Your task to perform on an android device: toggle pop-ups in chrome Image 0: 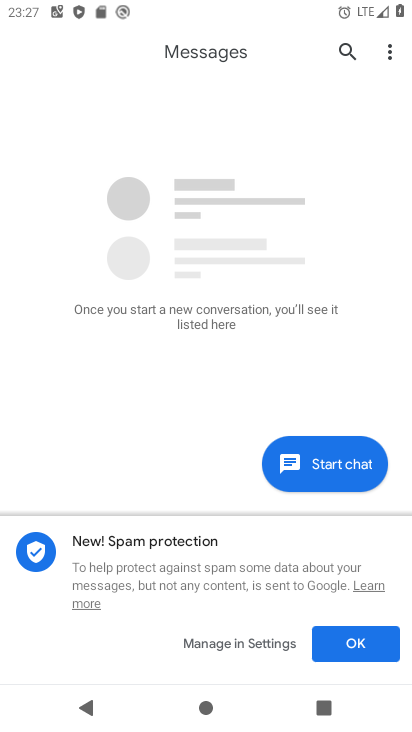
Step 0: press back button
Your task to perform on an android device: toggle pop-ups in chrome Image 1: 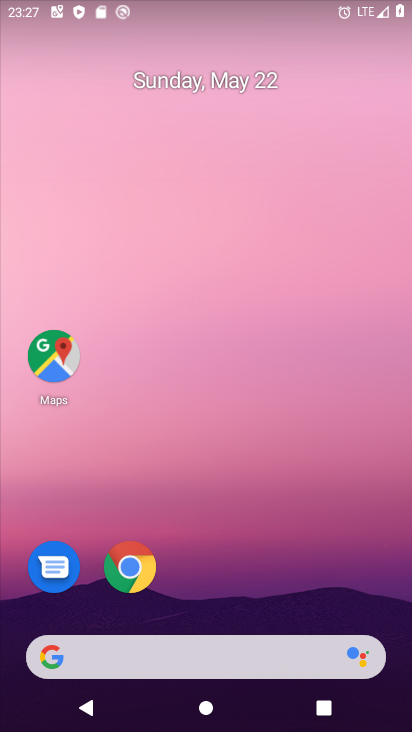
Step 1: drag from (205, 88) to (198, 37)
Your task to perform on an android device: toggle pop-ups in chrome Image 2: 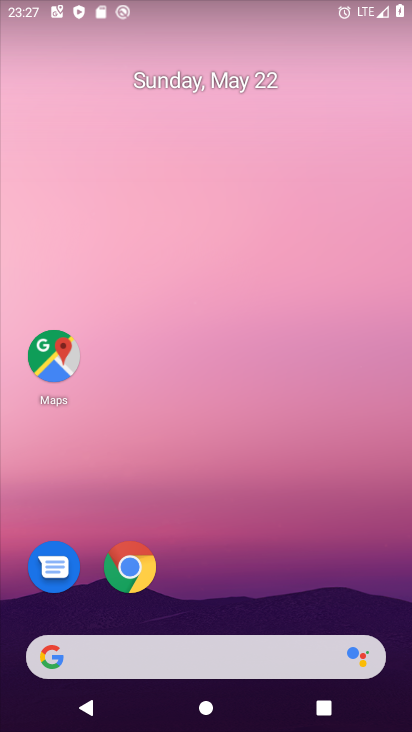
Step 2: drag from (200, 529) to (249, 49)
Your task to perform on an android device: toggle pop-ups in chrome Image 3: 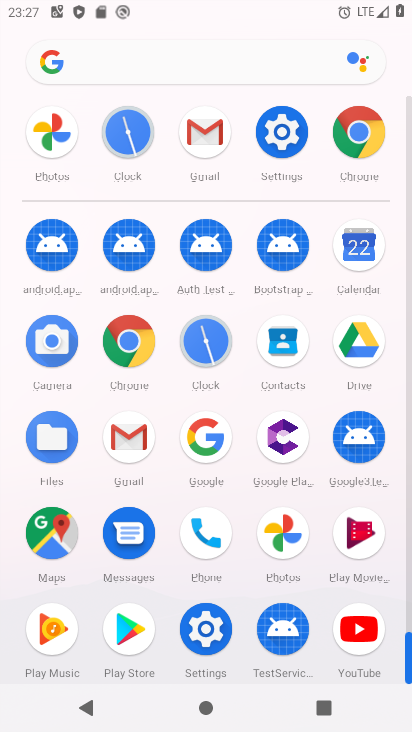
Step 3: drag from (3, 306) to (3, 228)
Your task to perform on an android device: toggle pop-ups in chrome Image 4: 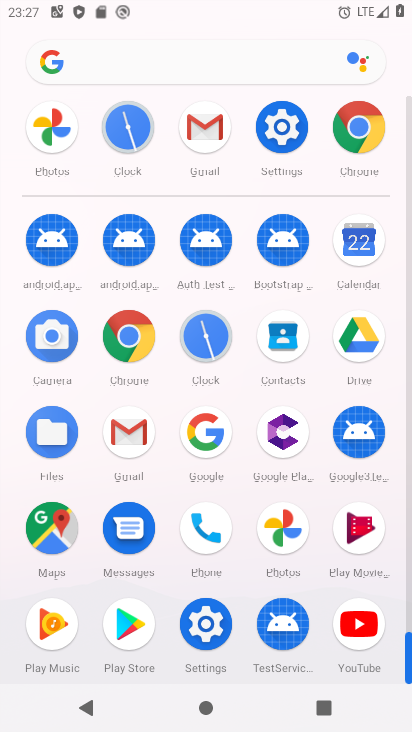
Step 4: drag from (7, 499) to (7, 239)
Your task to perform on an android device: toggle pop-ups in chrome Image 5: 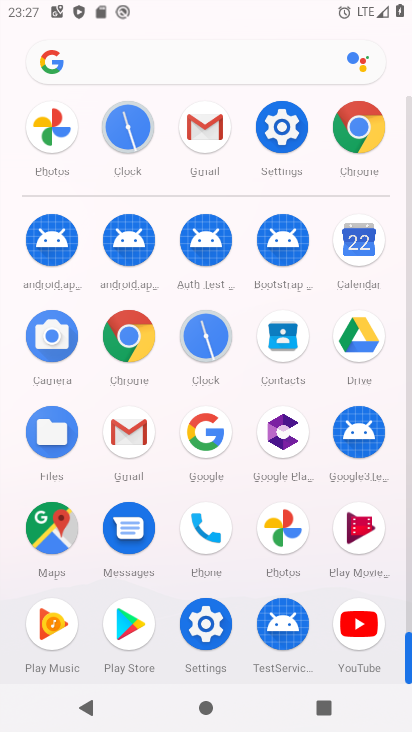
Step 5: click (127, 337)
Your task to perform on an android device: toggle pop-ups in chrome Image 6: 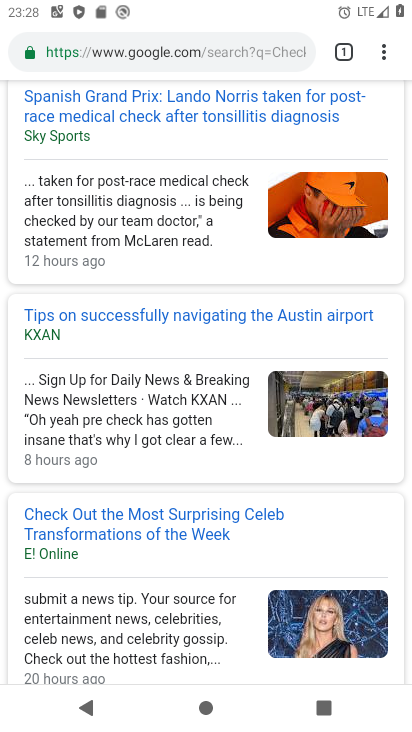
Step 6: drag from (384, 52) to (191, 585)
Your task to perform on an android device: toggle pop-ups in chrome Image 7: 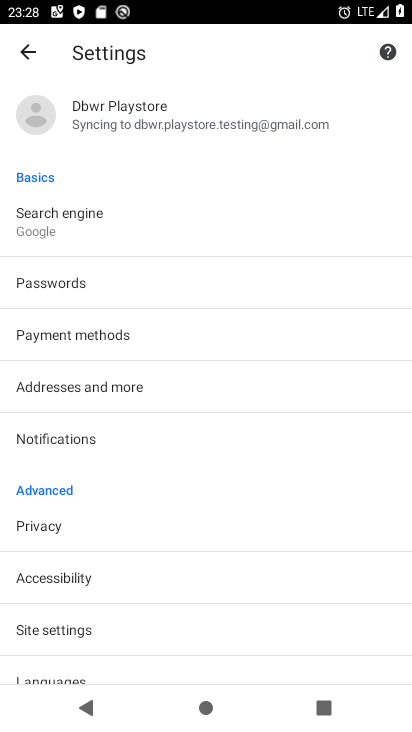
Step 7: drag from (247, 585) to (277, 134)
Your task to perform on an android device: toggle pop-ups in chrome Image 8: 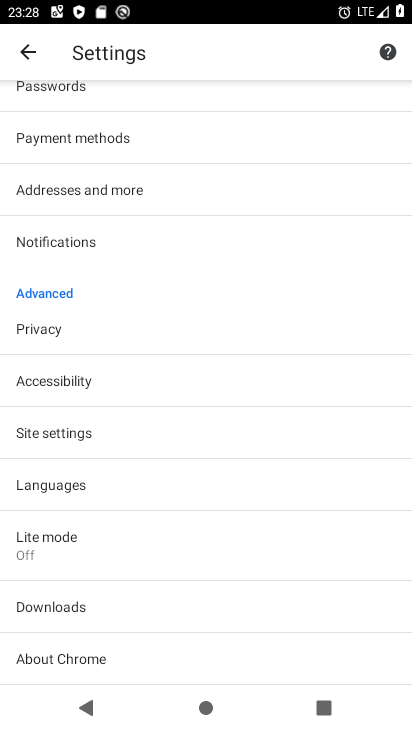
Step 8: click (63, 446)
Your task to perform on an android device: toggle pop-ups in chrome Image 9: 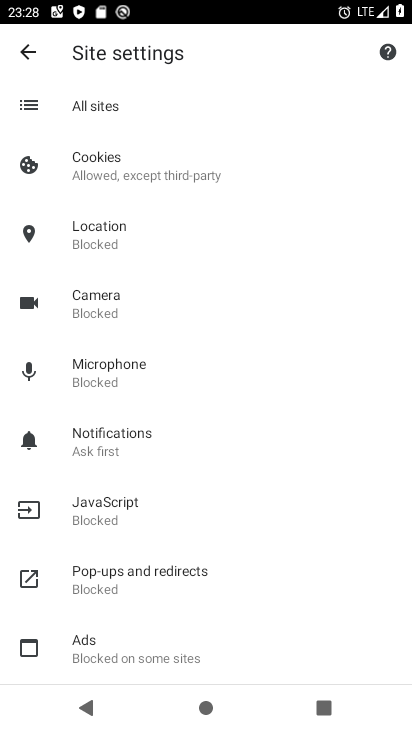
Step 9: click (132, 556)
Your task to perform on an android device: toggle pop-ups in chrome Image 10: 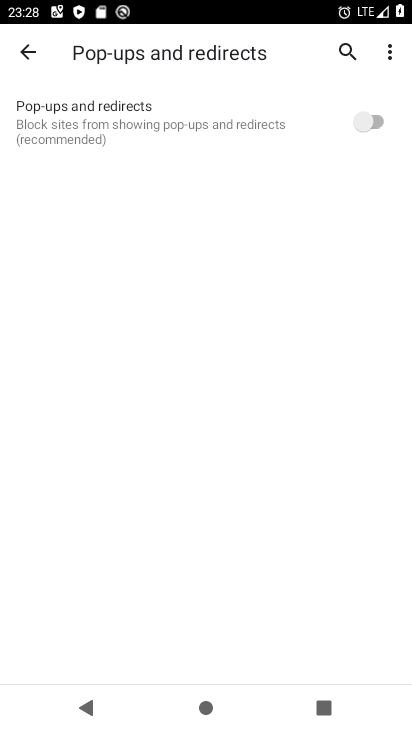
Step 10: task complete